Your task to perform on an android device: Open Chrome and go to the settings page Image 0: 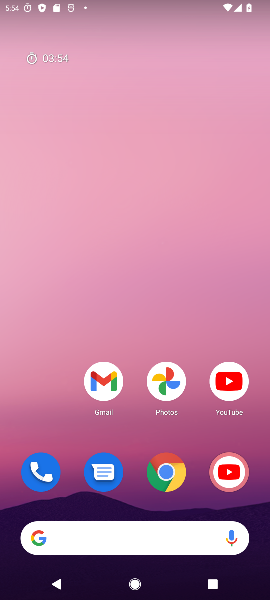
Step 0: press home button
Your task to perform on an android device: Open Chrome and go to the settings page Image 1: 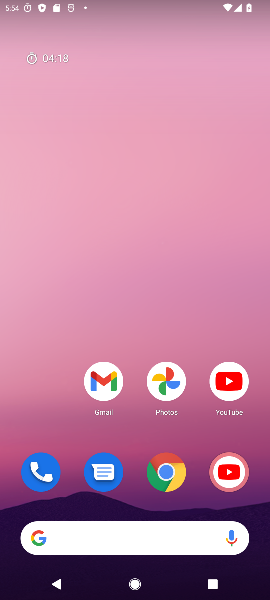
Step 1: click (167, 471)
Your task to perform on an android device: Open Chrome and go to the settings page Image 2: 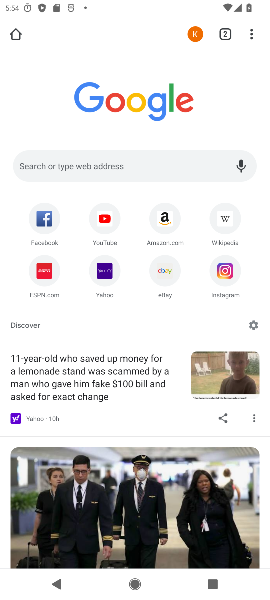
Step 2: task complete